Your task to perform on an android device: toggle show notifications on the lock screen Image 0: 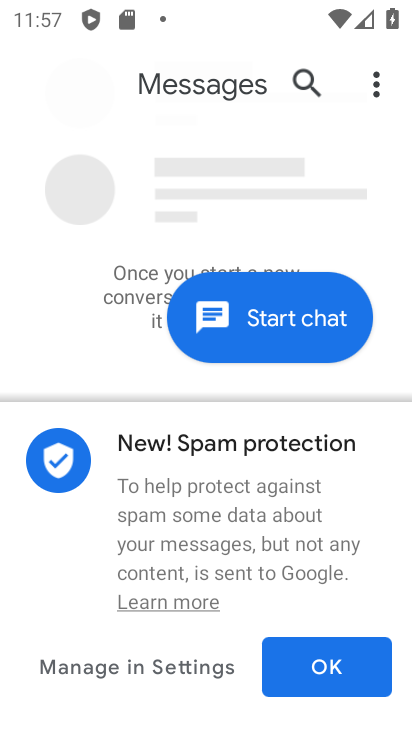
Step 0: press home button
Your task to perform on an android device: toggle show notifications on the lock screen Image 1: 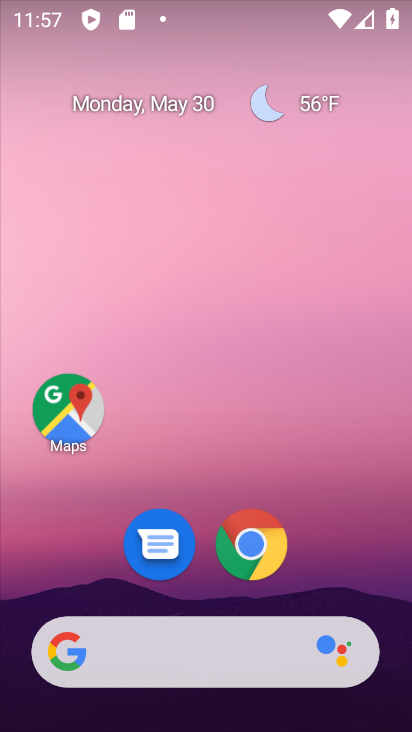
Step 1: drag from (303, 516) to (186, 88)
Your task to perform on an android device: toggle show notifications on the lock screen Image 2: 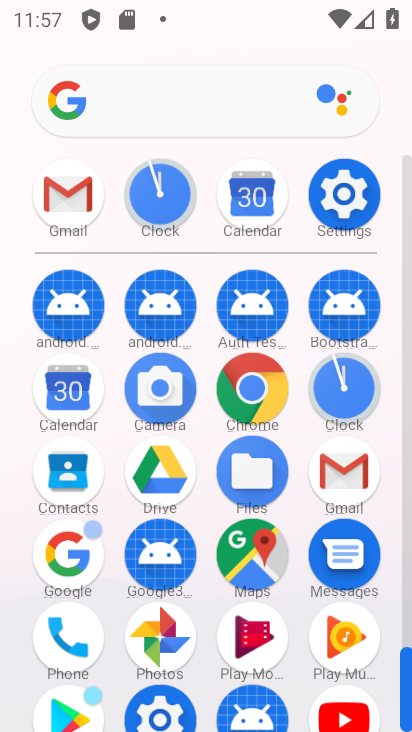
Step 2: click (343, 207)
Your task to perform on an android device: toggle show notifications on the lock screen Image 3: 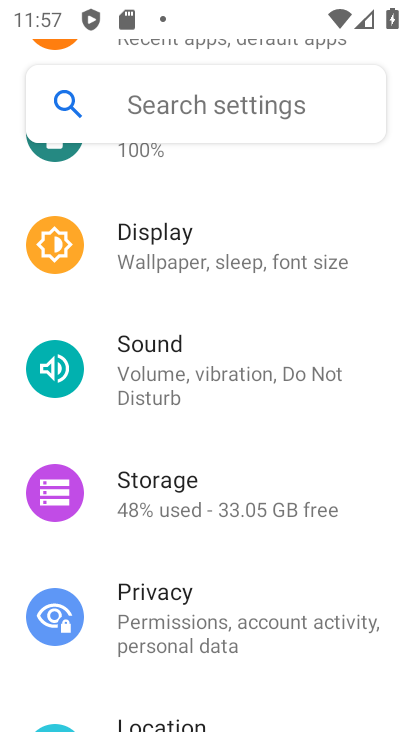
Step 3: drag from (220, 305) to (238, 625)
Your task to perform on an android device: toggle show notifications on the lock screen Image 4: 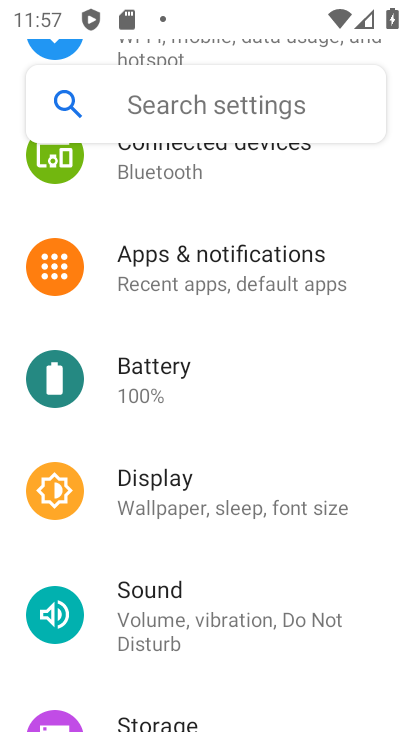
Step 4: click (190, 252)
Your task to perform on an android device: toggle show notifications on the lock screen Image 5: 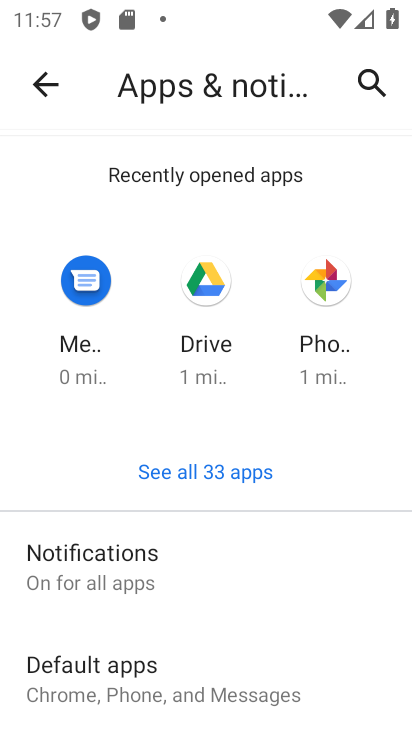
Step 5: drag from (236, 590) to (215, 402)
Your task to perform on an android device: toggle show notifications on the lock screen Image 6: 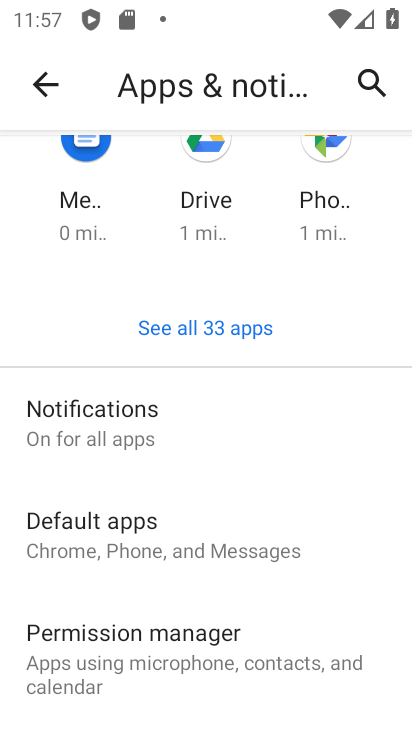
Step 6: click (116, 405)
Your task to perform on an android device: toggle show notifications on the lock screen Image 7: 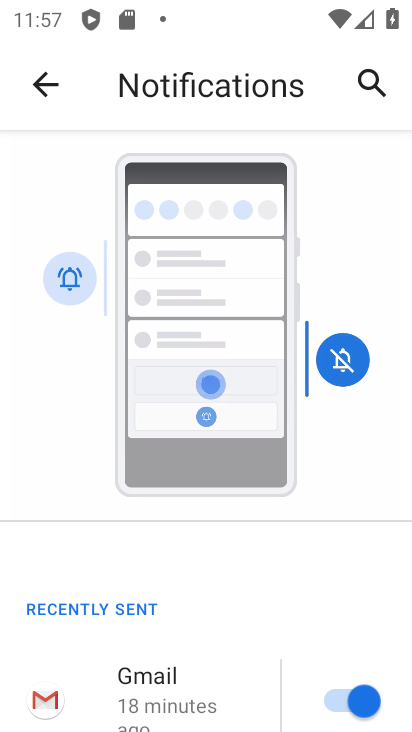
Step 7: drag from (214, 603) to (213, 308)
Your task to perform on an android device: toggle show notifications on the lock screen Image 8: 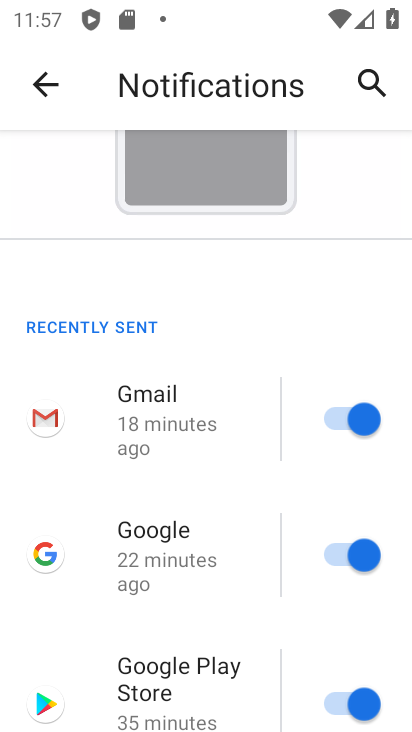
Step 8: drag from (235, 600) to (189, 426)
Your task to perform on an android device: toggle show notifications on the lock screen Image 9: 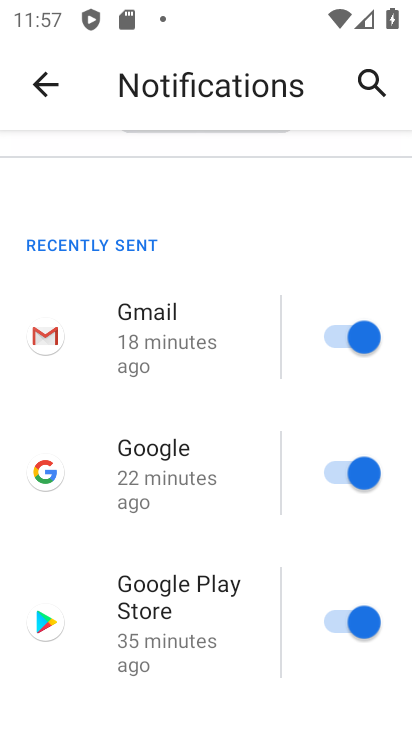
Step 9: drag from (239, 685) to (248, 306)
Your task to perform on an android device: toggle show notifications on the lock screen Image 10: 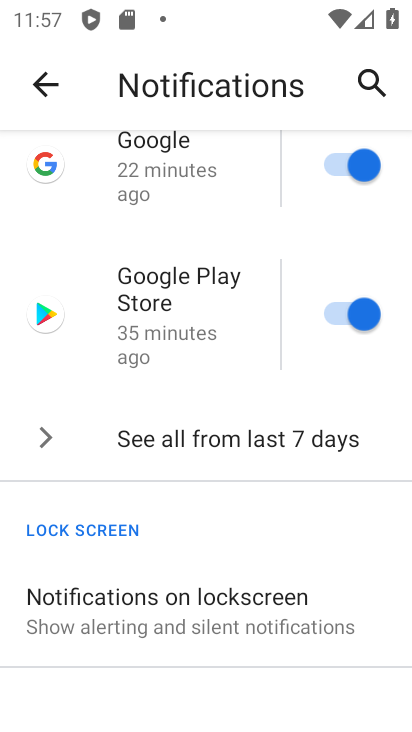
Step 10: click (202, 595)
Your task to perform on an android device: toggle show notifications on the lock screen Image 11: 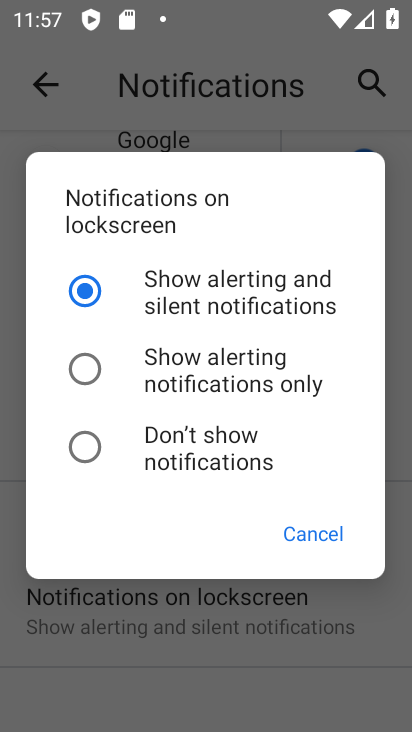
Step 11: click (75, 440)
Your task to perform on an android device: toggle show notifications on the lock screen Image 12: 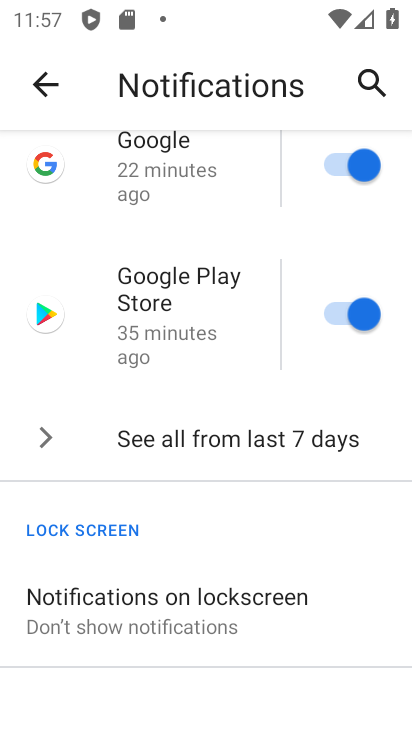
Step 12: task complete